Your task to perform on an android device: What's the latest news in space exploration? Image 0: 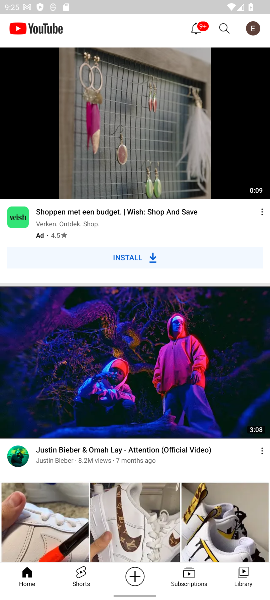
Step 0: press home button
Your task to perform on an android device: What's the latest news in space exploration? Image 1: 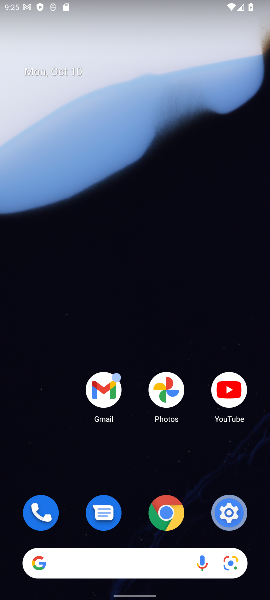
Step 1: click (108, 557)
Your task to perform on an android device: What's the latest news in space exploration? Image 2: 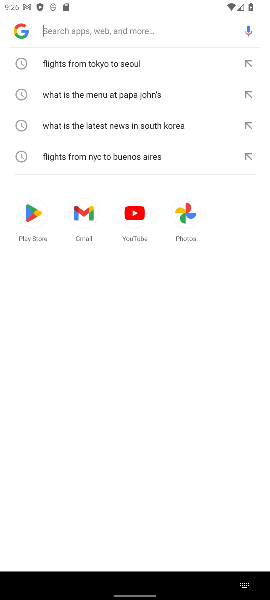
Step 2: type "What's the latest news in space exploration?"
Your task to perform on an android device: What's the latest news in space exploration? Image 3: 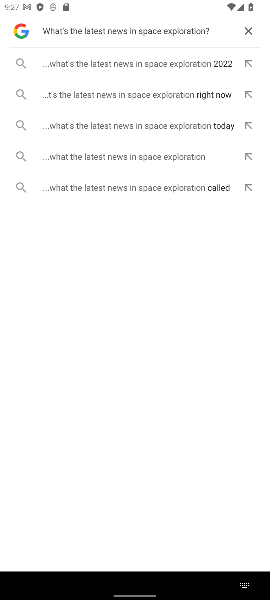
Step 3: click (143, 64)
Your task to perform on an android device: What's the latest news in space exploration? Image 4: 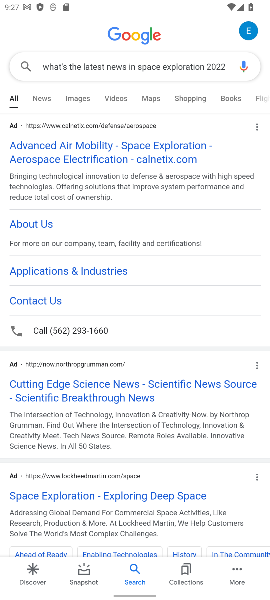
Step 4: task complete